Your task to perform on an android device: Open calendar and show me the fourth week of next month Image 0: 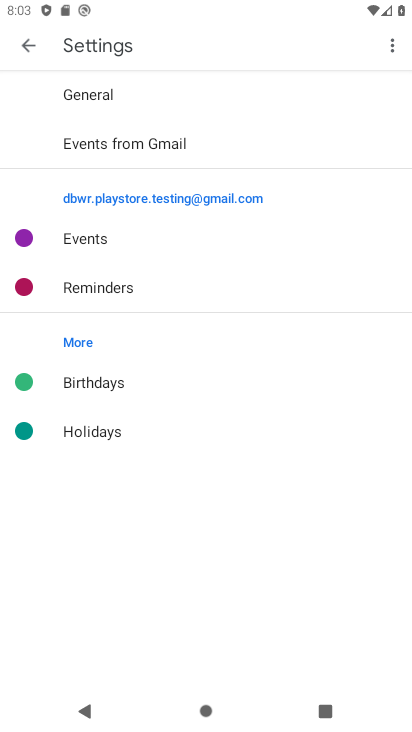
Step 0: press home button
Your task to perform on an android device: Open calendar and show me the fourth week of next month Image 1: 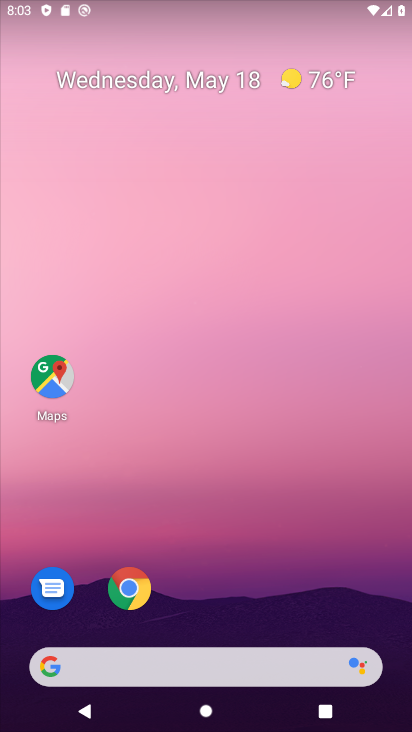
Step 1: click (237, 599)
Your task to perform on an android device: Open calendar and show me the fourth week of next month Image 2: 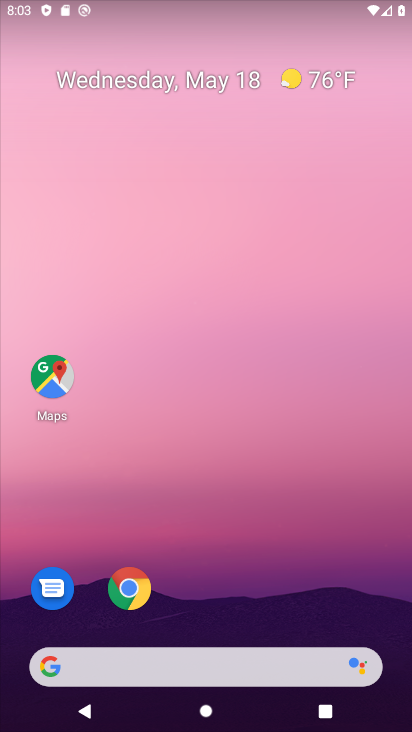
Step 2: drag from (237, 589) to (234, 57)
Your task to perform on an android device: Open calendar and show me the fourth week of next month Image 3: 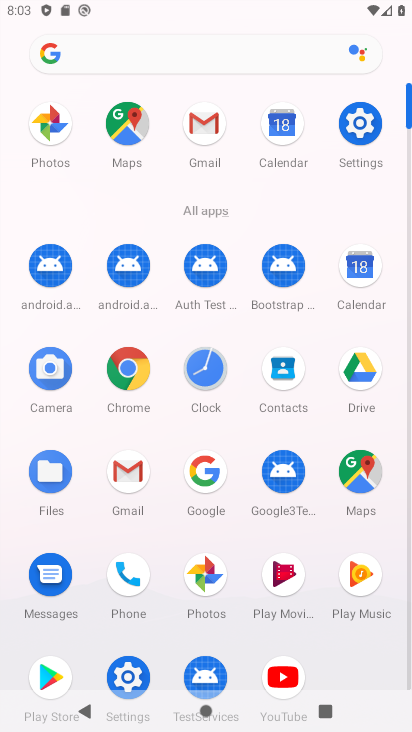
Step 3: click (354, 297)
Your task to perform on an android device: Open calendar and show me the fourth week of next month Image 4: 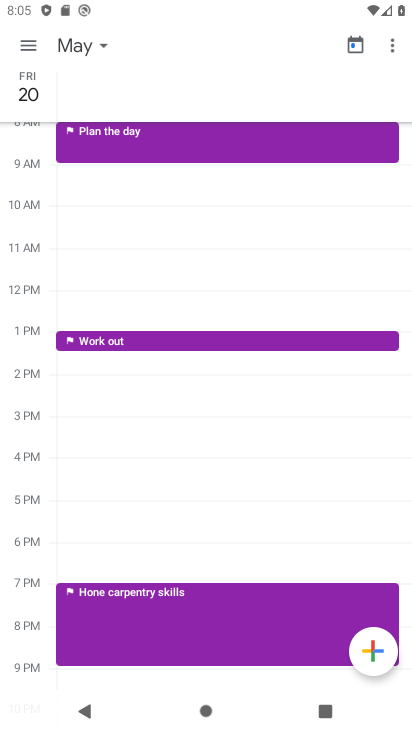
Step 4: press home button
Your task to perform on an android device: Open calendar and show me the fourth week of next month Image 5: 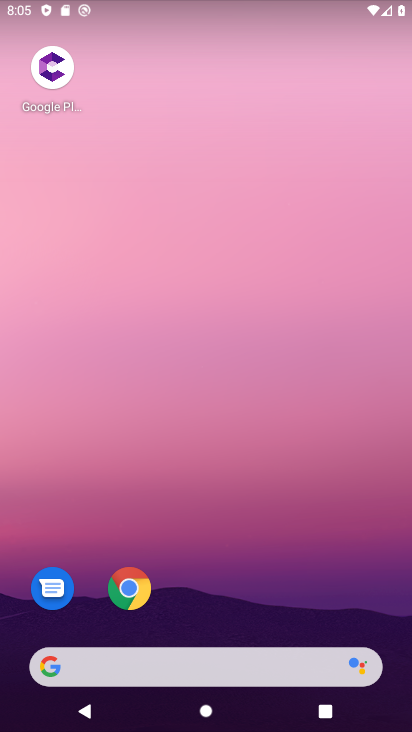
Step 5: drag from (237, 577) to (250, 0)
Your task to perform on an android device: Open calendar and show me the fourth week of next month Image 6: 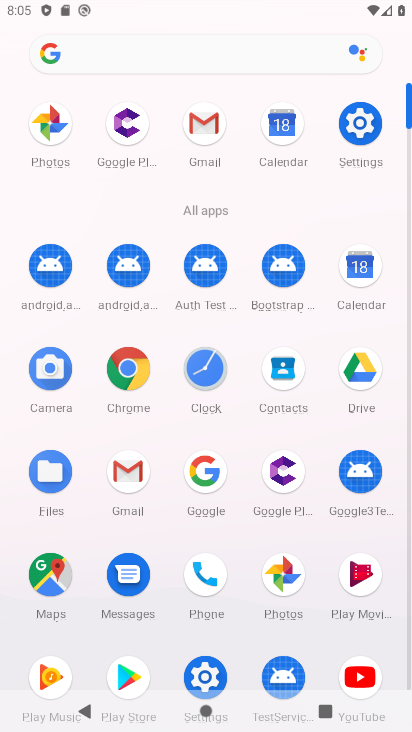
Step 6: click (289, 143)
Your task to perform on an android device: Open calendar and show me the fourth week of next month Image 7: 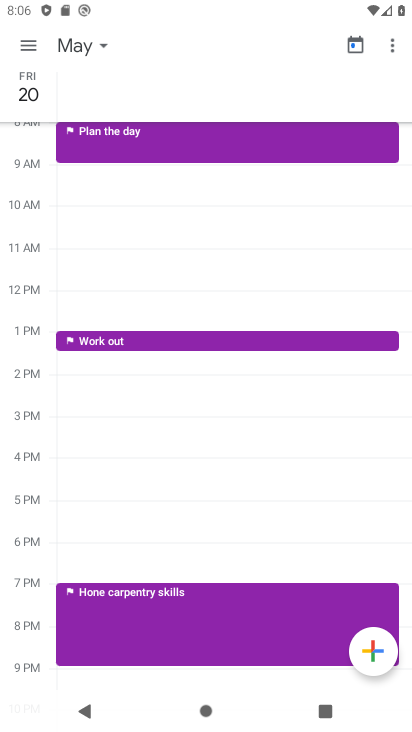
Step 7: click (39, 47)
Your task to perform on an android device: Open calendar and show me the fourth week of next month Image 8: 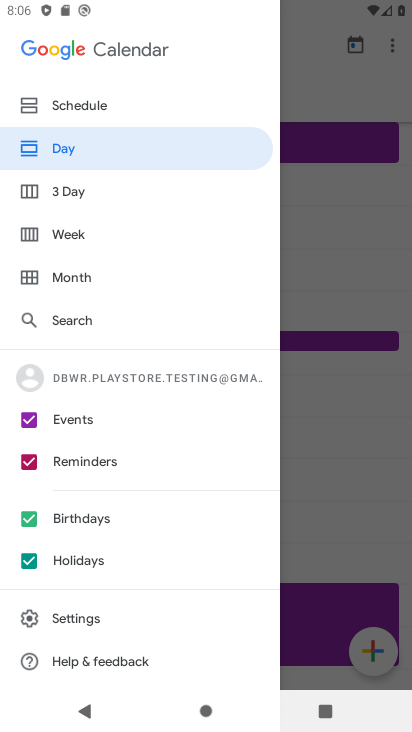
Step 8: click (116, 286)
Your task to perform on an android device: Open calendar and show me the fourth week of next month Image 9: 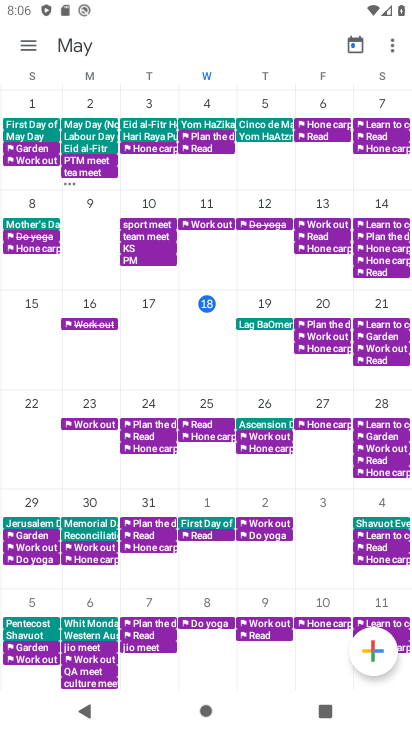
Step 9: click (82, 39)
Your task to perform on an android device: Open calendar and show me the fourth week of next month Image 10: 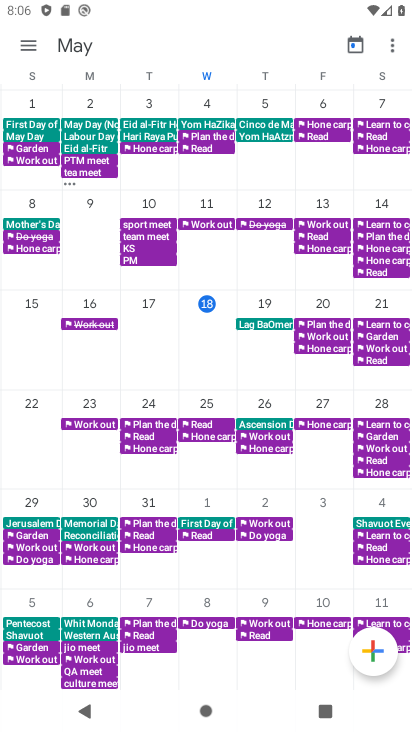
Step 10: click (33, 51)
Your task to perform on an android device: Open calendar and show me the fourth week of next month Image 11: 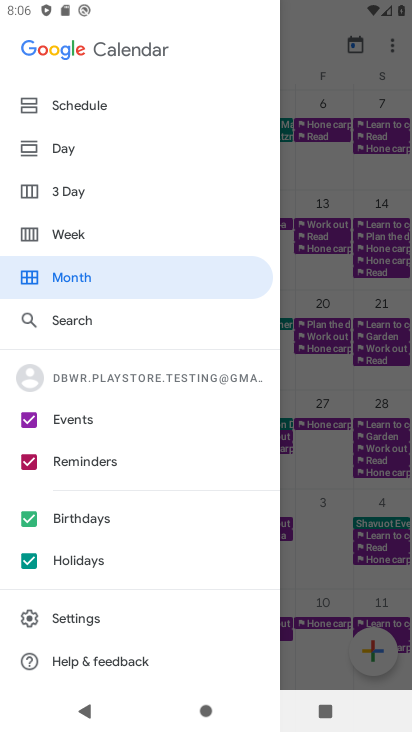
Step 11: click (46, 101)
Your task to perform on an android device: Open calendar and show me the fourth week of next month Image 12: 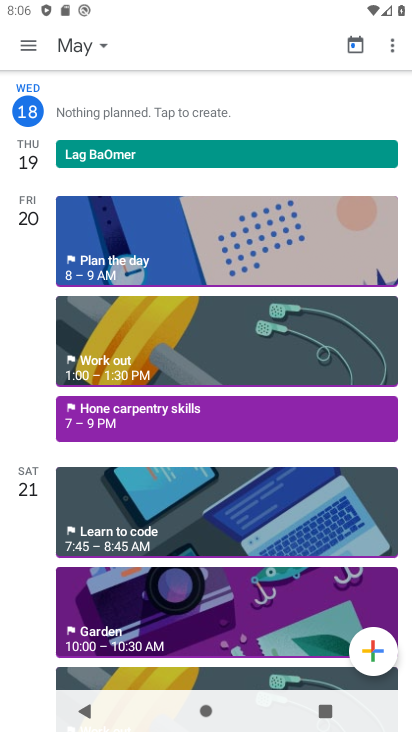
Step 12: drag from (308, 147) to (1, 61)
Your task to perform on an android device: Open calendar and show me the fourth week of next month Image 13: 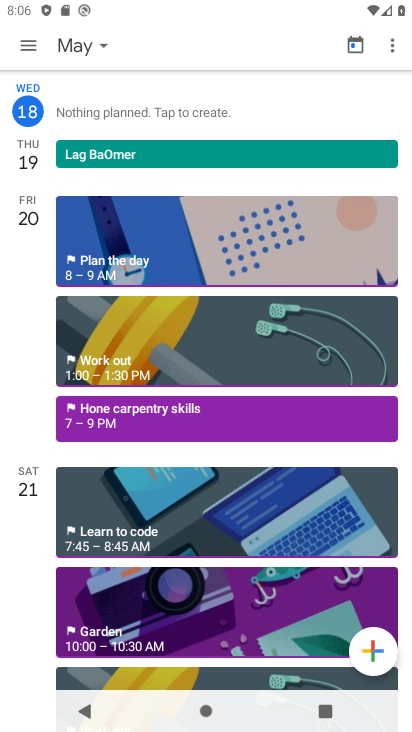
Step 13: click (91, 40)
Your task to perform on an android device: Open calendar and show me the fourth week of next month Image 14: 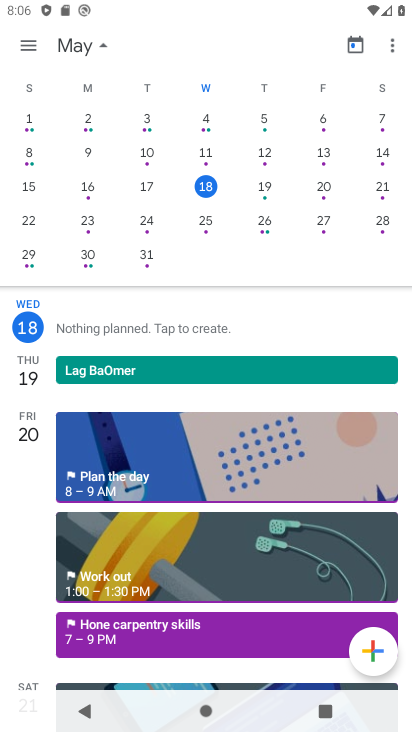
Step 14: drag from (375, 265) to (8, 220)
Your task to perform on an android device: Open calendar and show me the fourth week of next month Image 15: 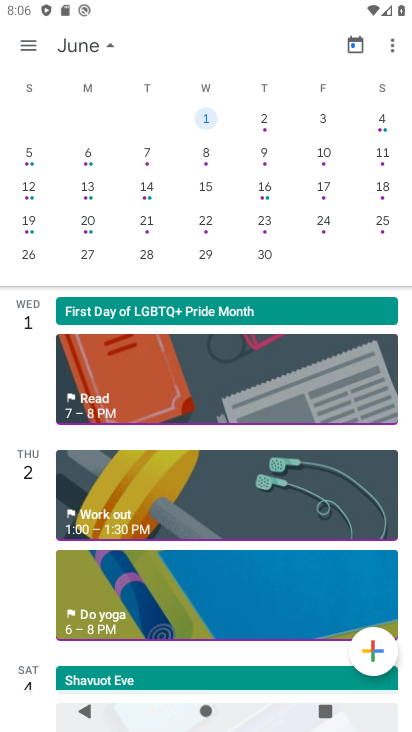
Step 15: click (139, 246)
Your task to perform on an android device: Open calendar and show me the fourth week of next month Image 16: 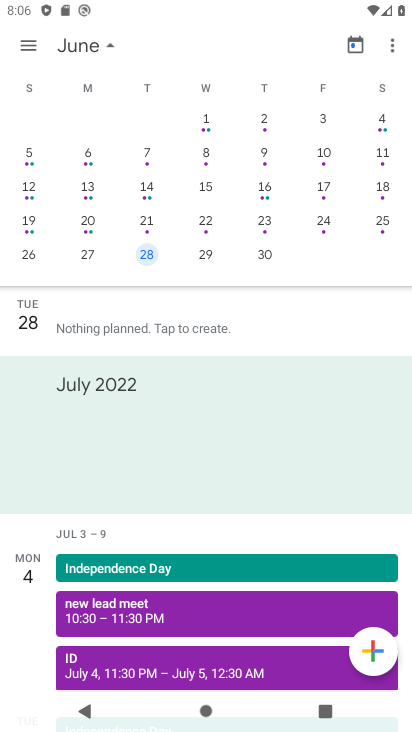
Step 16: task complete